Your task to perform on an android device: turn on the 24-hour format for clock Image 0: 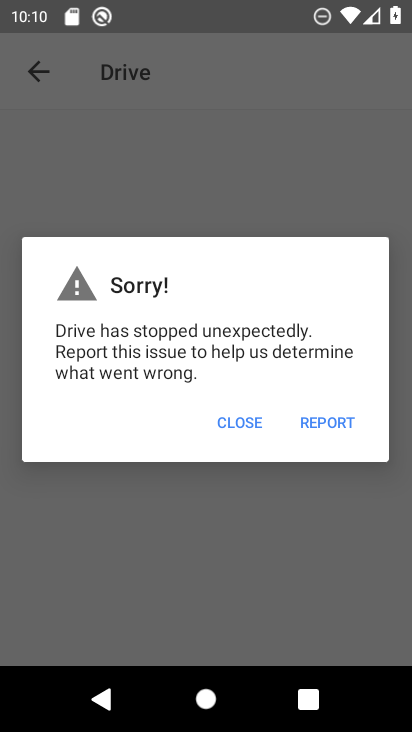
Step 0: click (254, 420)
Your task to perform on an android device: turn on the 24-hour format for clock Image 1: 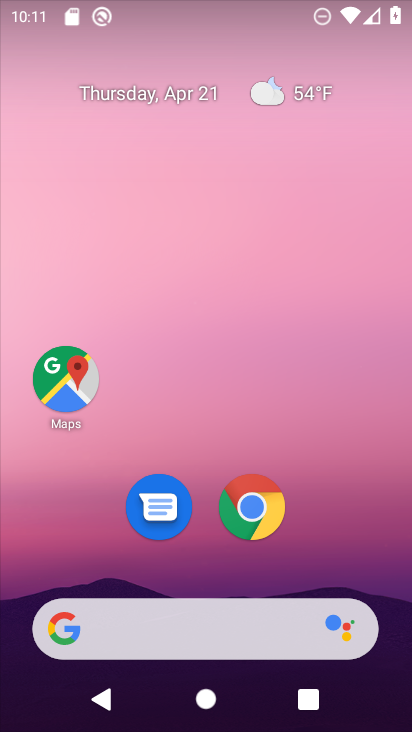
Step 1: drag from (197, 518) to (178, 239)
Your task to perform on an android device: turn on the 24-hour format for clock Image 2: 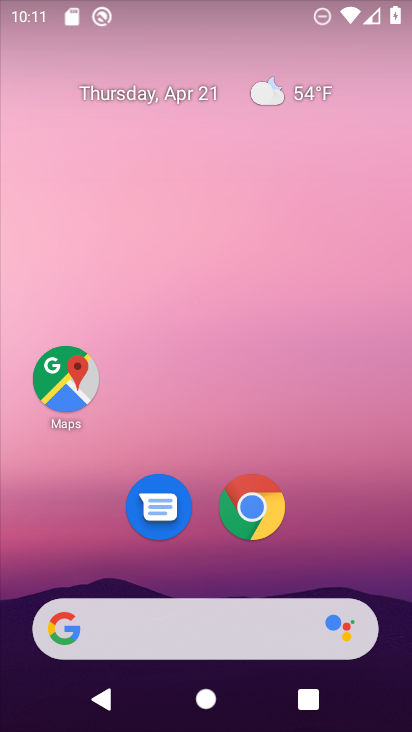
Step 2: drag from (220, 592) to (211, 203)
Your task to perform on an android device: turn on the 24-hour format for clock Image 3: 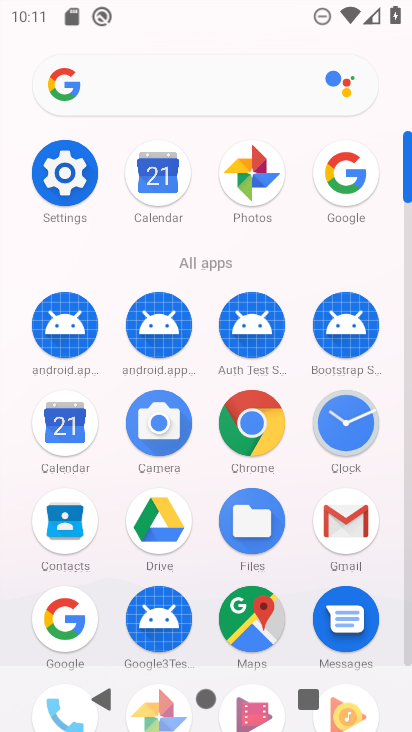
Step 3: click (344, 424)
Your task to perform on an android device: turn on the 24-hour format for clock Image 4: 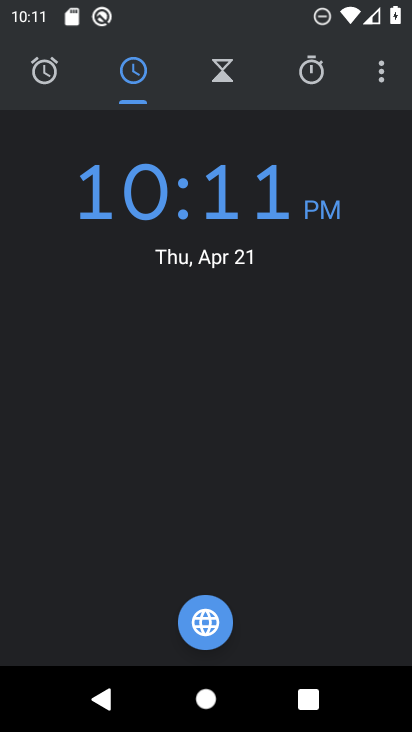
Step 4: click (380, 70)
Your task to perform on an android device: turn on the 24-hour format for clock Image 5: 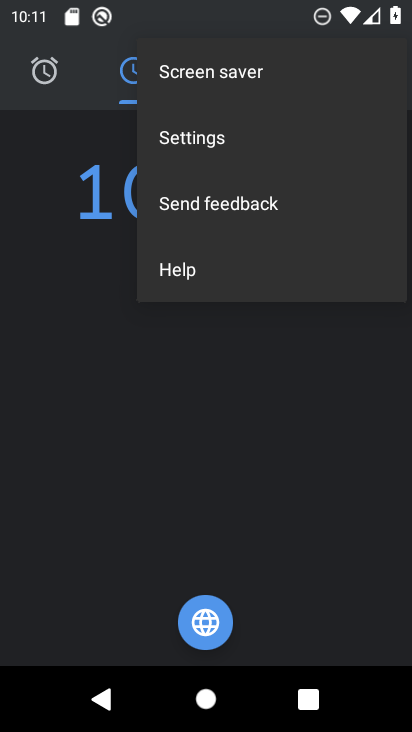
Step 5: click (174, 147)
Your task to perform on an android device: turn on the 24-hour format for clock Image 6: 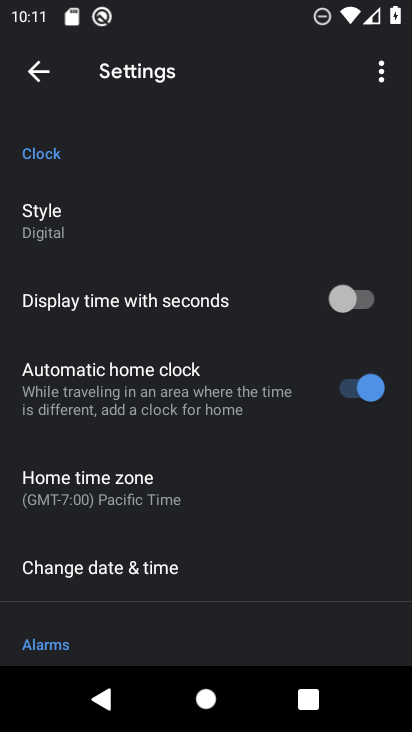
Step 6: click (97, 569)
Your task to perform on an android device: turn on the 24-hour format for clock Image 7: 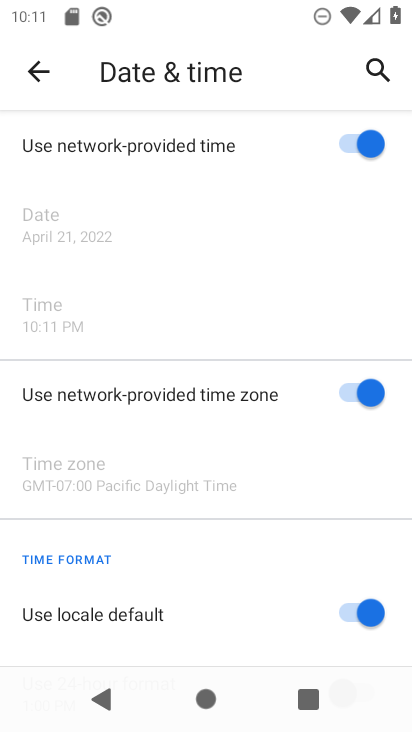
Step 7: drag from (181, 655) to (189, 369)
Your task to perform on an android device: turn on the 24-hour format for clock Image 8: 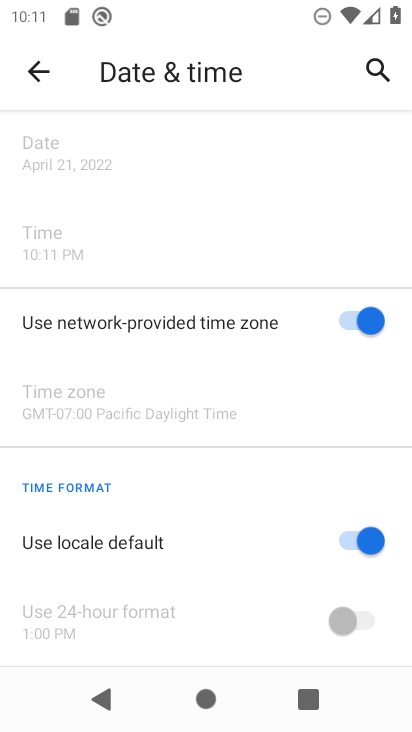
Step 8: click (355, 539)
Your task to perform on an android device: turn on the 24-hour format for clock Image 9: 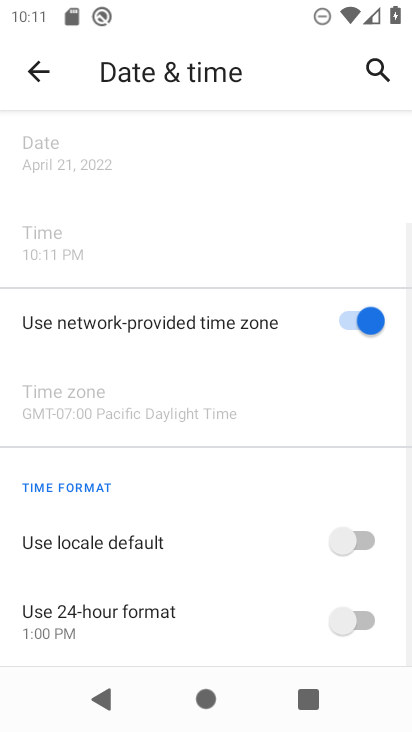
Step 9: click (361, 618)
Your task to perform on an android device: turn on the 24-hour format for clock Image 10: 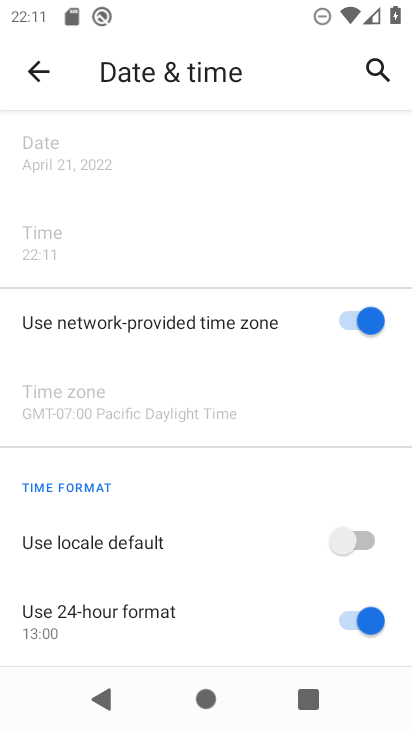
Step 10: task complete